Your task to perform on an android device: turn off sleep mode Image 0: 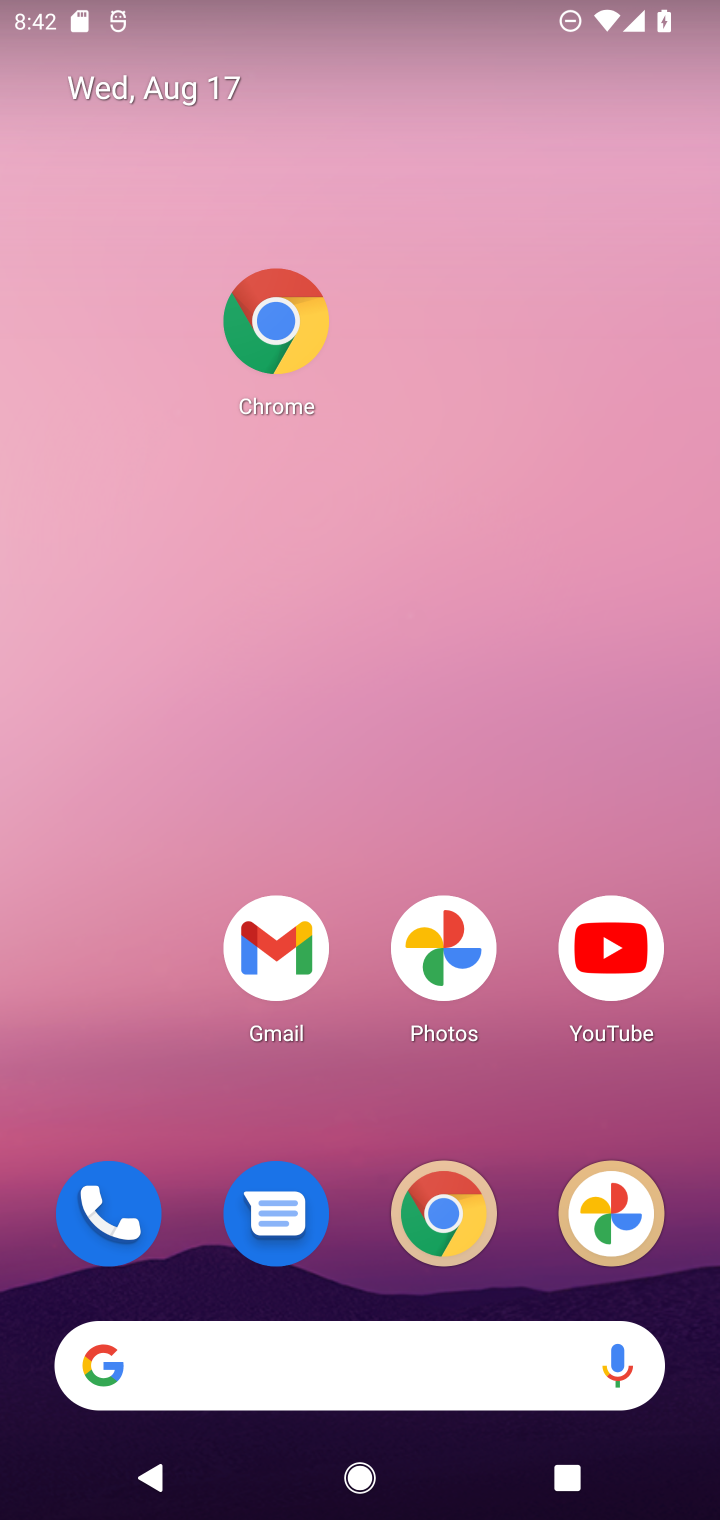
Step 0: drag from (356, 1296) to (335, 215)
Your task to perform on an android device: turn off sleep mode Image 1: 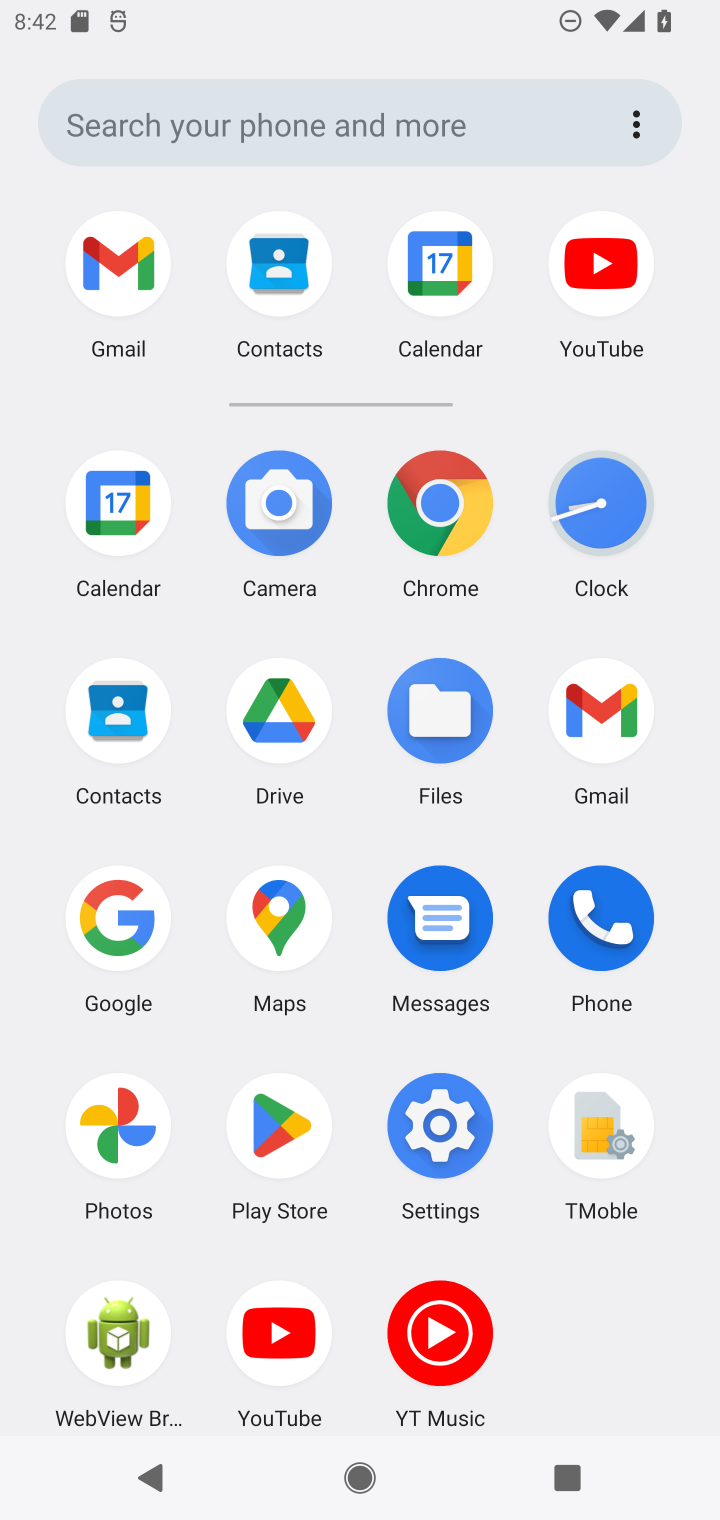
Step 1: click (444, 1175)
Your task to perform on an android device: turn off sleep mode Image 2: 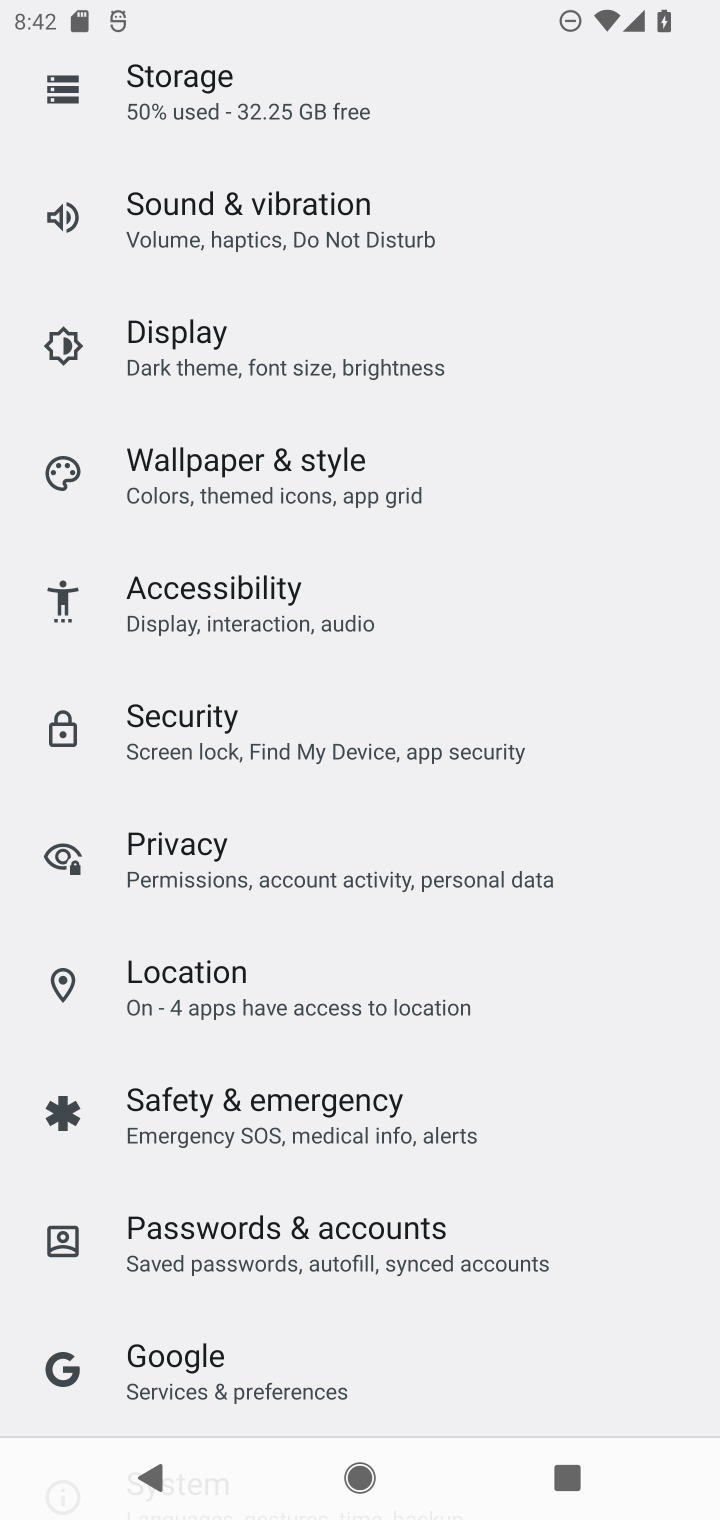
Step 2: drag from (358, 501) to (390, 919)
Your task to perform on an android device: turn off sleep mode Image 3: 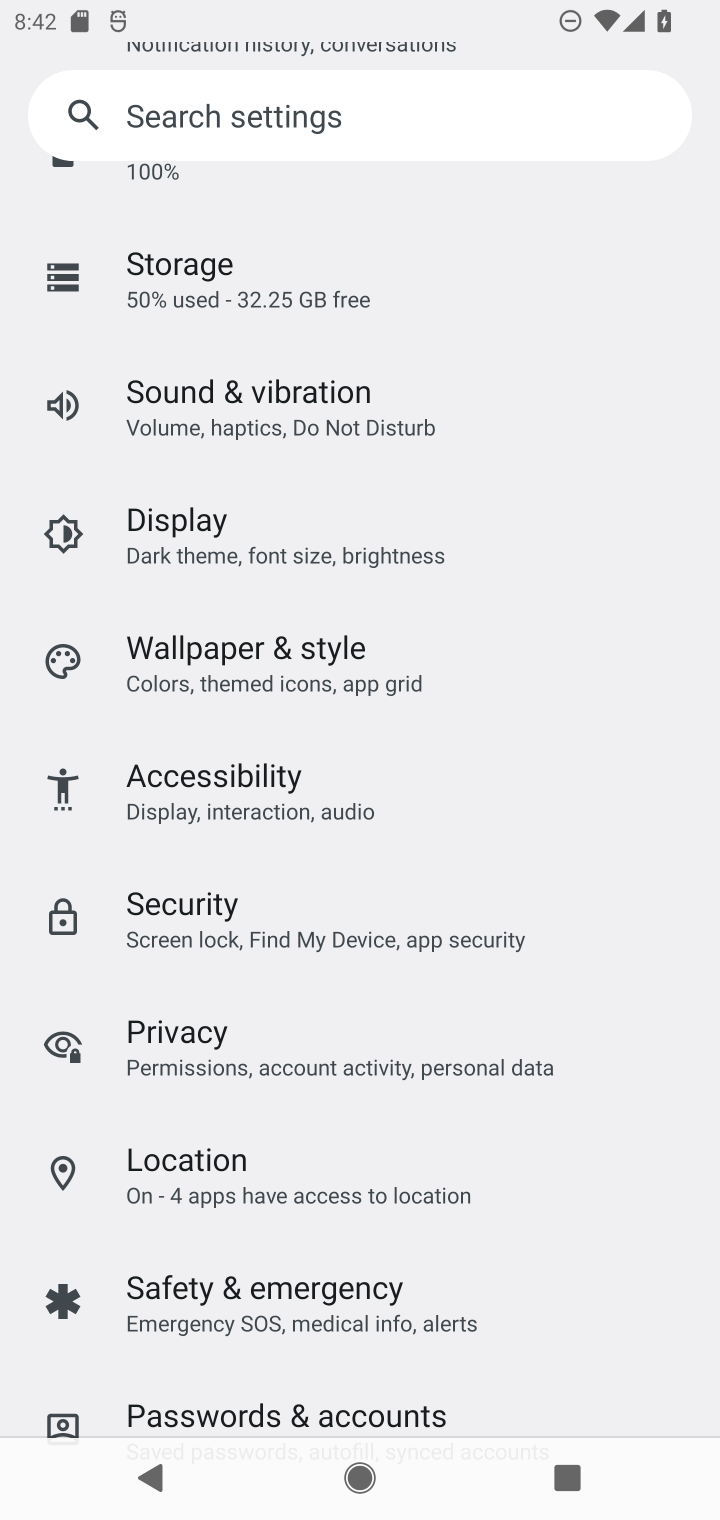
Step 3: click (338, 543)
Your task to perform on an android device: turn off sleep mode Image 4: 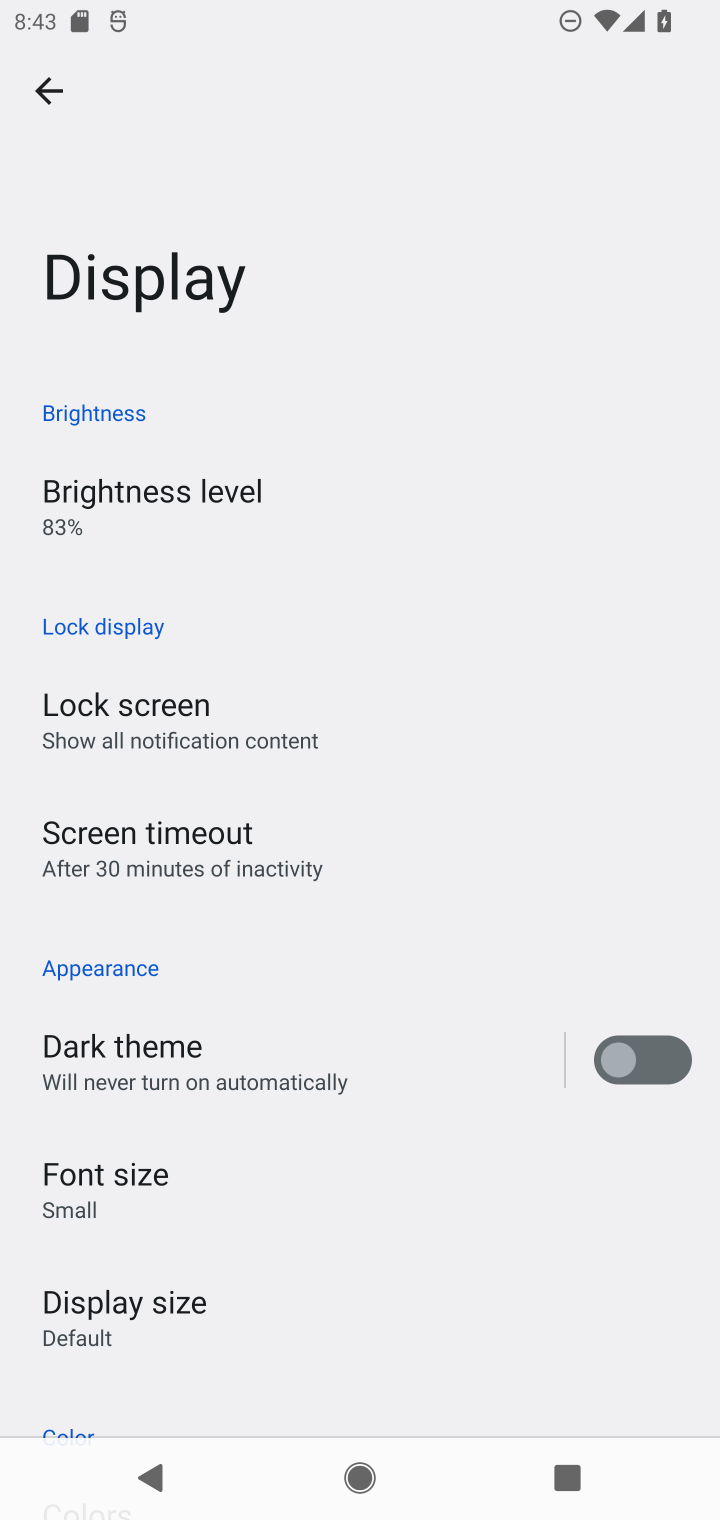
Step 4: task complete